Your task to perform on an android device: delete browsing data in the chrome app Image 0: 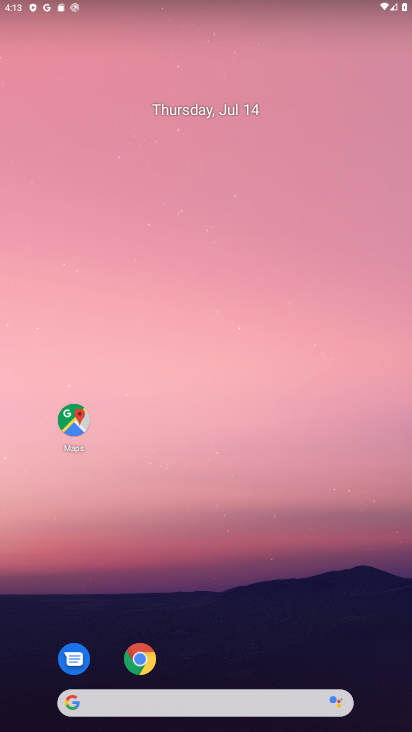
Step 0: drag from (272, 725) to (220, 143)
Your task to perform on an android device: delete browsing data in the chrome app Image 1: 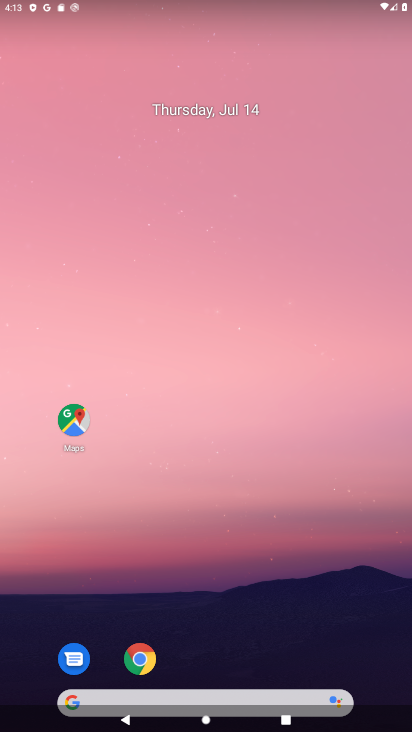
Step 1: drag from (294, 550) to (175, 128)
Your task to perform on an android device: delete browsing data in the chrome app Image 2: 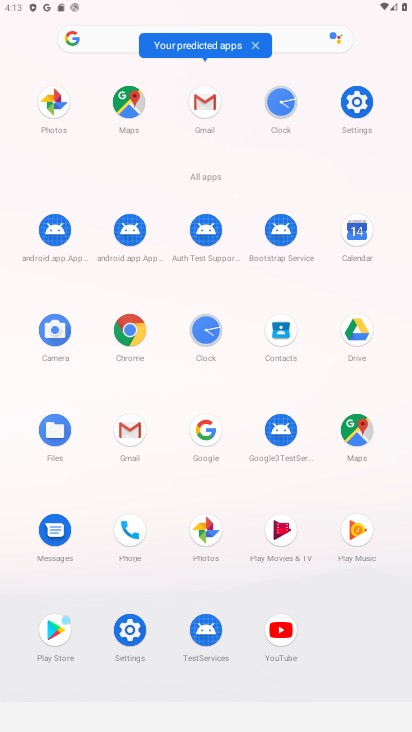
Step 2: click (118, 336)
Your task to perform on an android device: delete browsing data in the chrome app Image 3: 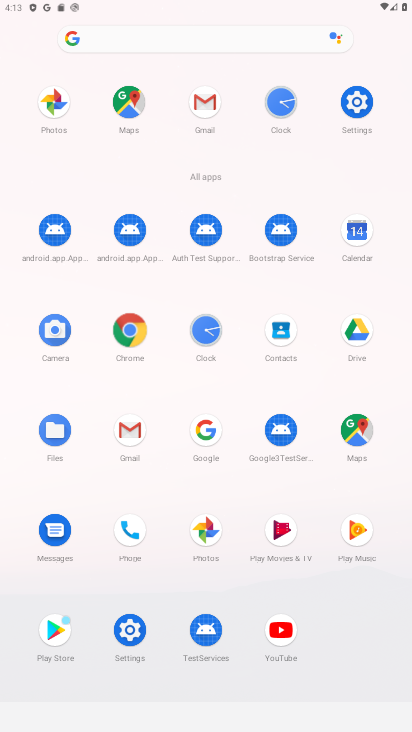
Step 3: click (126, 329)
Your task to perform on an android device: delete browsing data in the chrome app Image 4: 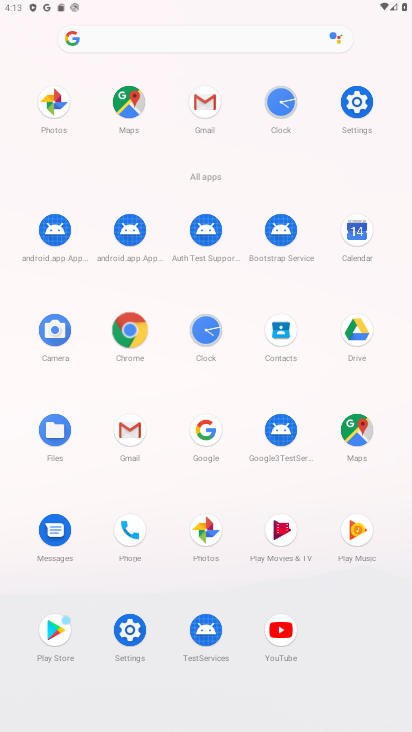
Step 4: click (129, 329)
Your task to perform on an android device: delete browsing data in the chrome app Image 5: 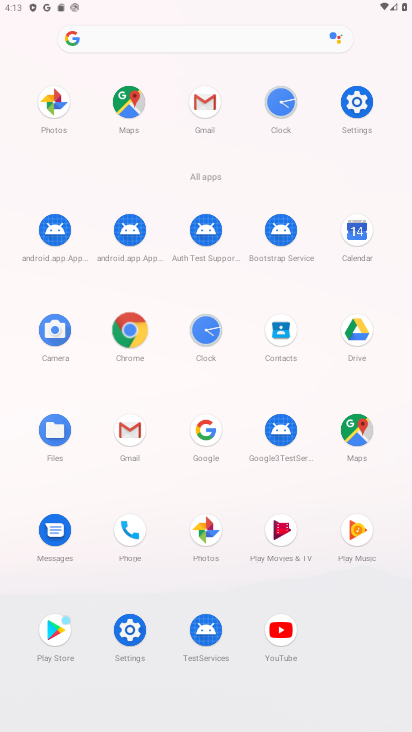
Step 5: click (126, 313)
Your task to perform on an android device: delete browsing data in the chrome app Image 6: 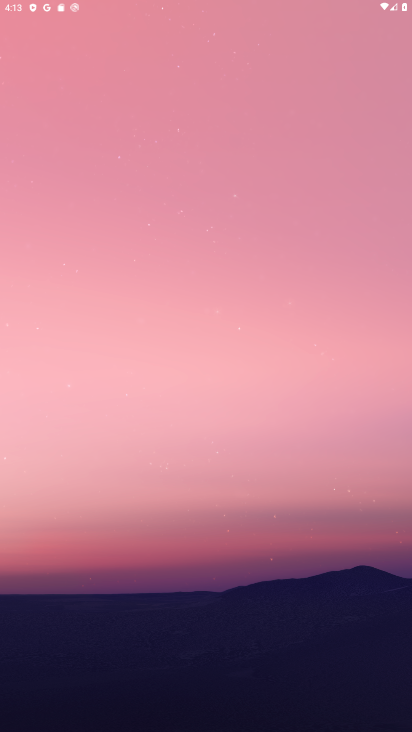
Step 6: click (131, 325)
Your task to perform on an android device: delete browsing data in the chrome app Image 7: 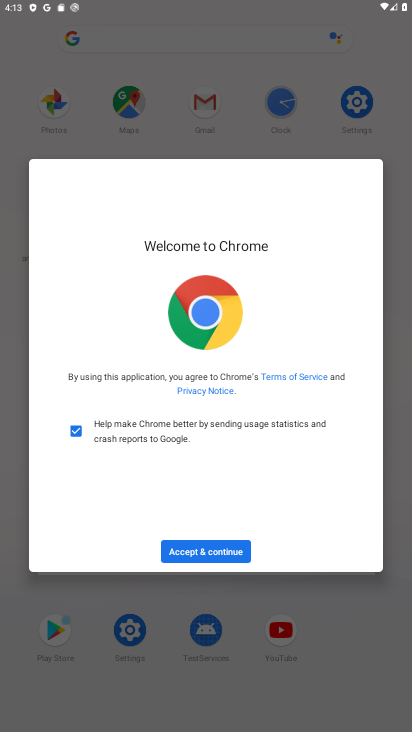
Step 7: click (213, 563)
Your task to perform on an android device: delete browsing data in the chrome app Image 8: 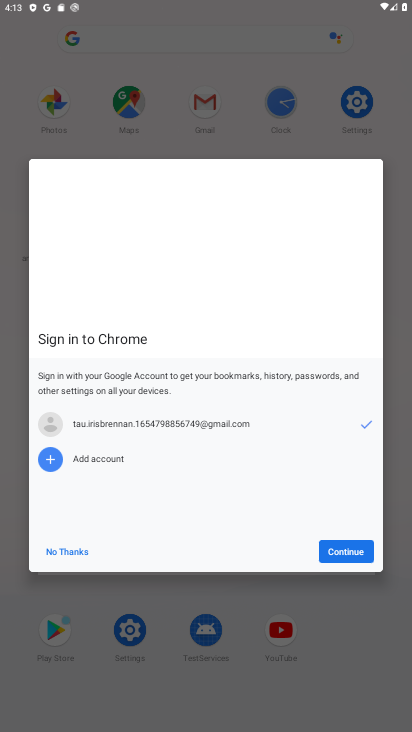
Step 8: click (214, 547)
Your task to perform on an android device: delete browsing data in the chrome app Image 9: 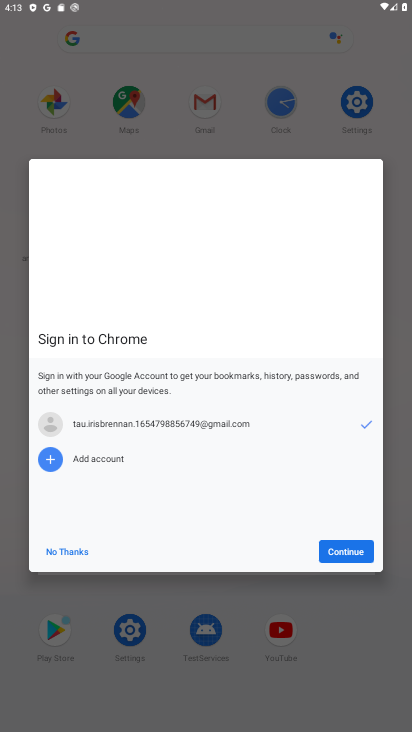
Step 9: click (213, 546)
Your task to perform on an android device: delete browsing data in the chrome app Image 10: 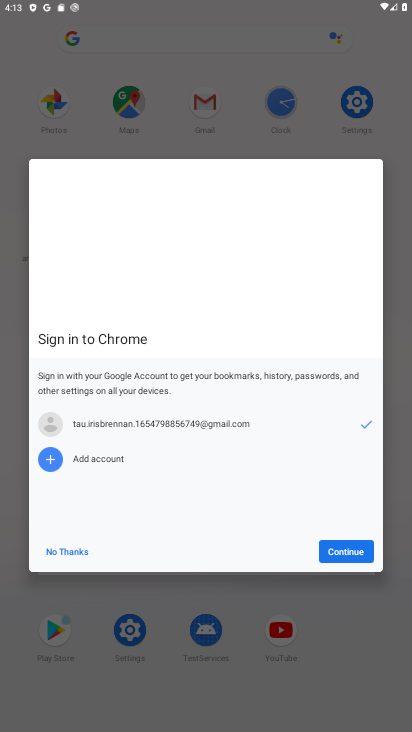
Step 10: click (212, 547)
Your task to perform on an android device: delete browsing data in the chrome app Image 11: 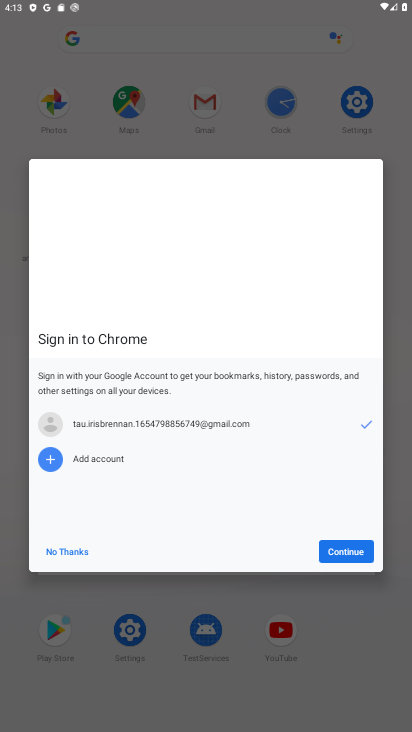
Step 11: click (341, 552)
Your task to perform on an android device: delete browsing data in the chrome app Image 12: 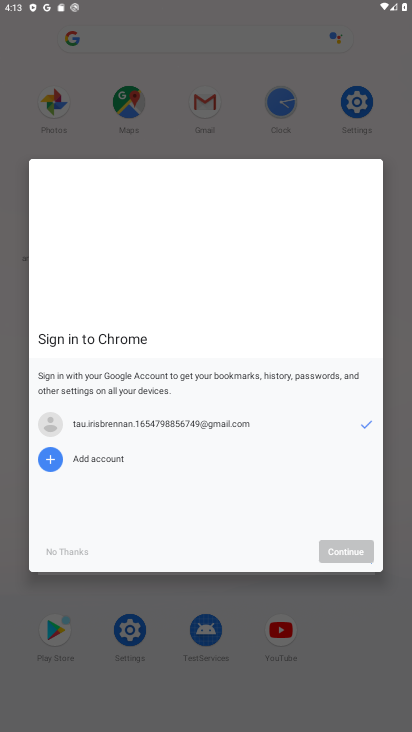
Step 12: click (337, 548)
Your task to perform on an android device: delete browsing data in the chrome app Image 13: 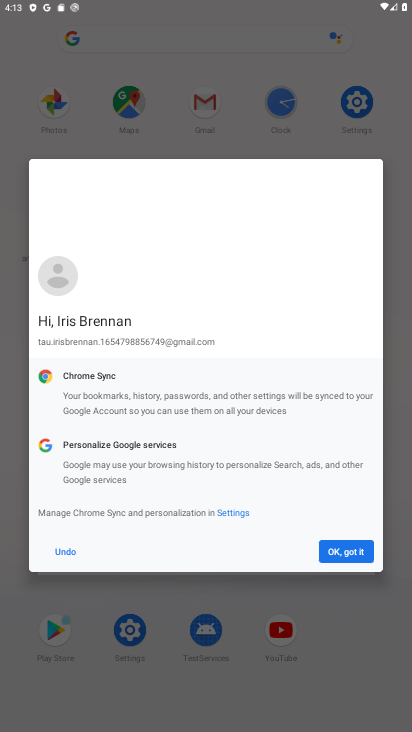
Step 13: click (337, 548)
Your task to perform on an android device: delete browsing data in the chrome app Image 14: 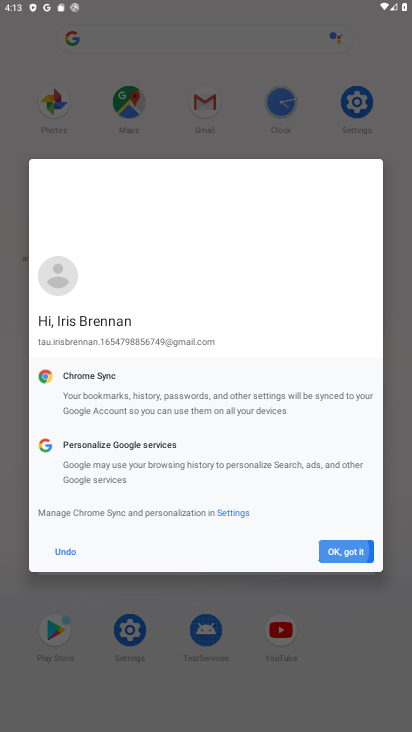
Step 14: click (337, 548)
Your task to perform on an android device: delete browsing data in the chrome app Image 15: 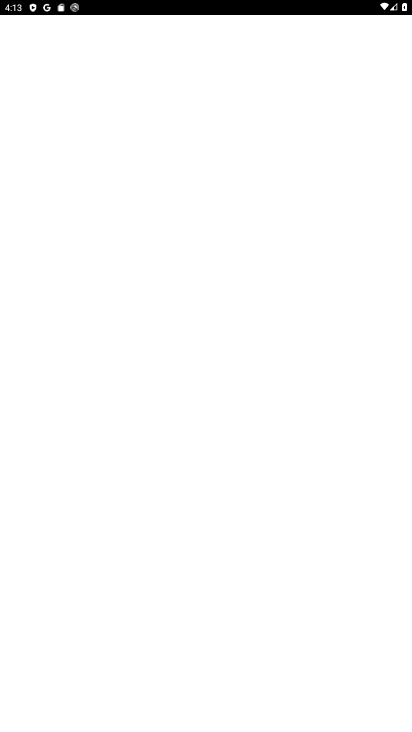
Step 15: click (336, 545)
Your task to perform on an android device: delete browsing data in the chrome app Image 16: 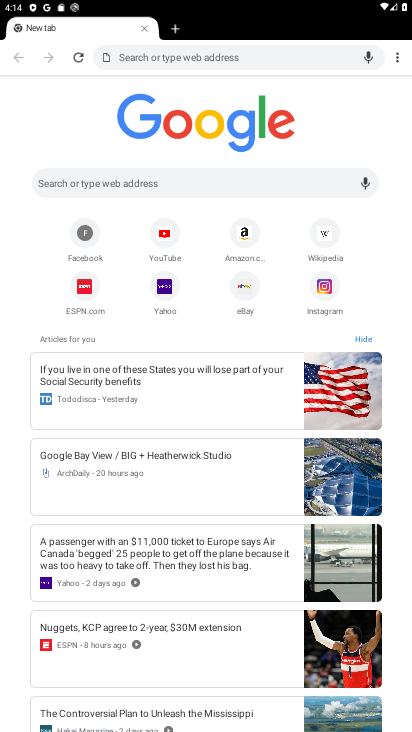
Step 16: click (398, 52)
Your task to perform on an android device: delete browsing data in the chrome app Image 17: 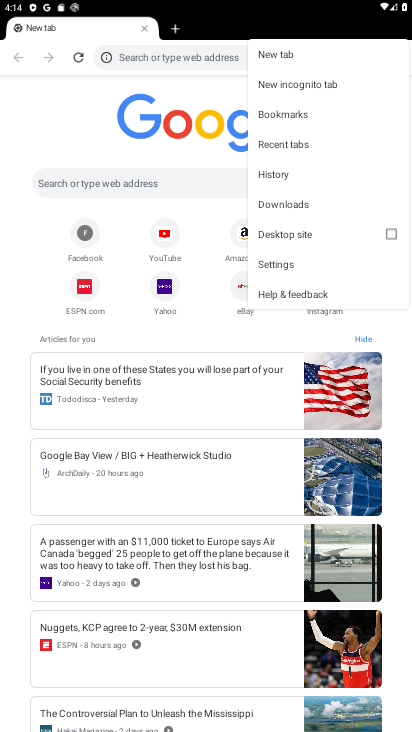
Step 17: click (270, 173)
Your task to perform on an android device: delete browsing data in the chrome app Image 18: 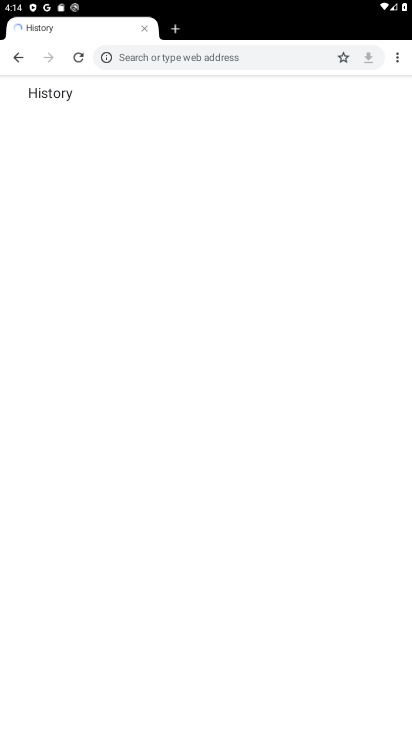
Step 18: click (270, 173)
Your task to perform on an android device: delete browsing data in the chrome app Image 19: 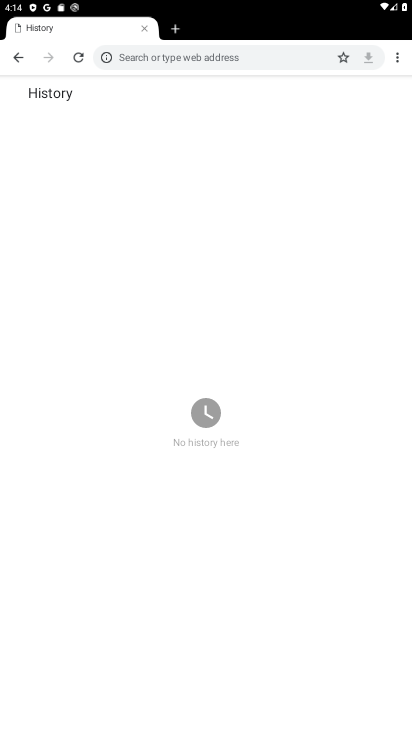
Step 19: task complete